Your task to perform on an android device: delete browsing data in the chrome app Image 0: 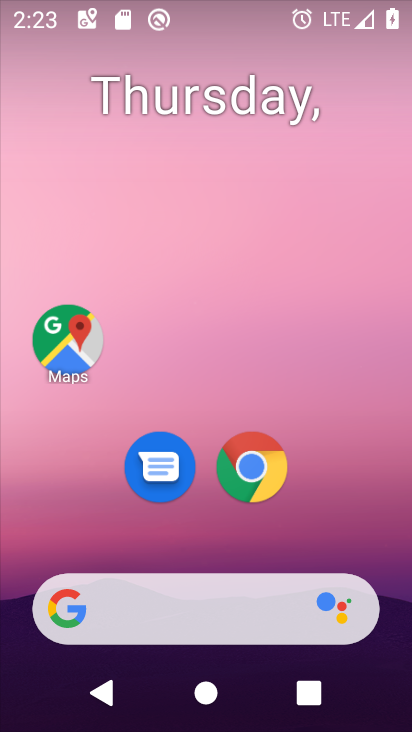
Step 0: click (254, 465)
Your task to perform on an android device: delete browsing data in the chrome app Image 1: 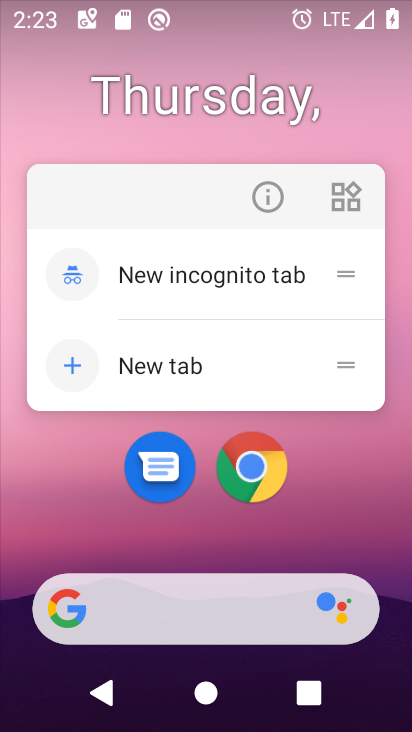
Step 1: click (256, 468)
Your task to perform on an android device: delete browsing data in the chrome app Image 2: 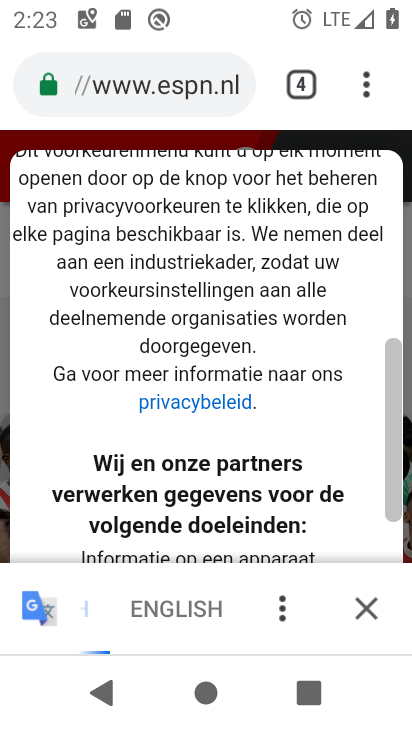
Step 2: click (367, 89)
Your task to perform on an android device: delete browsing data in the chrome app Image 3: 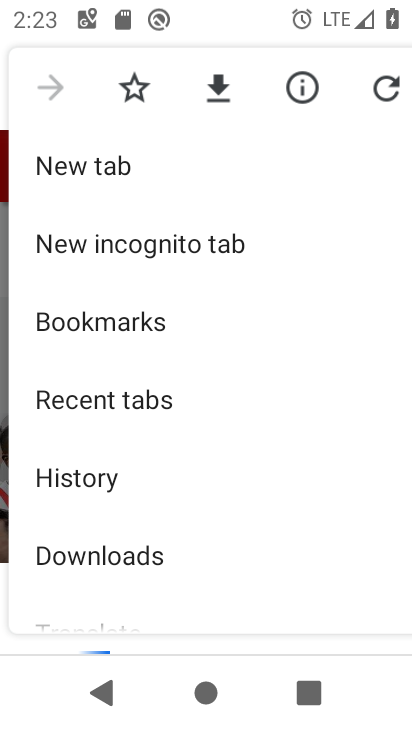
Step 3: click (105, 327)
Your task to perform on an android device: delete browsing data in the chrome app Image 4: 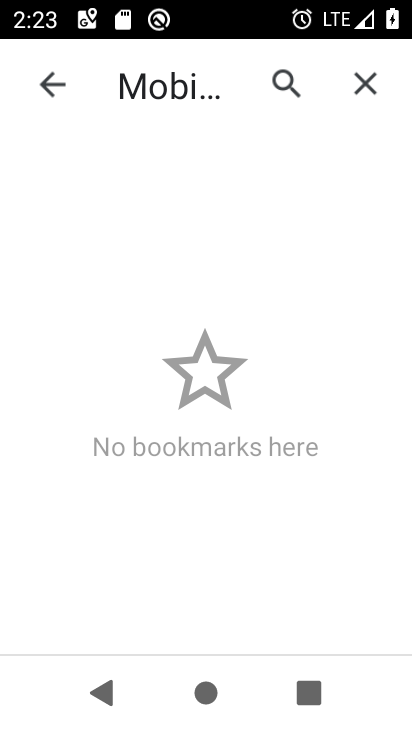
Step 4: click (42, 92)
Your task to perform on an android device: delete browsing data in the chrome app Image 5: 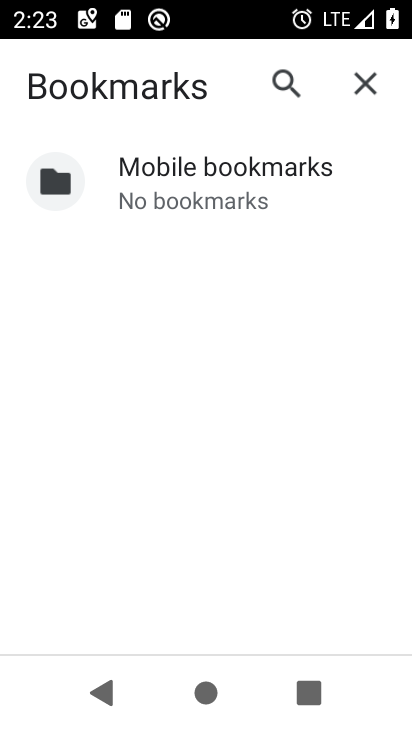
Step 5: click (360, 78)
Your task to perform on an android device: delete browsing data in the chrome app Image 6: 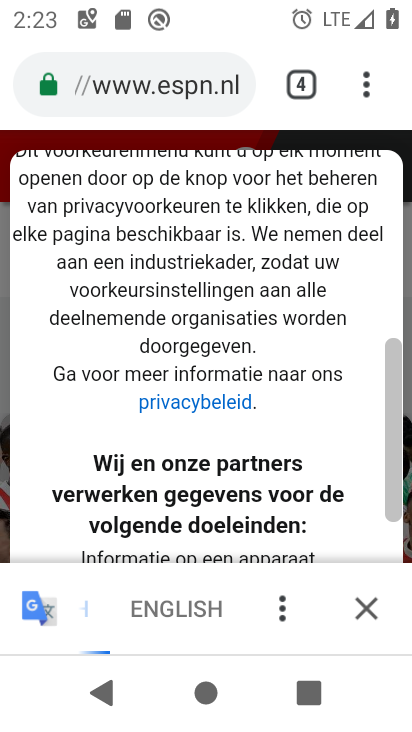
Step 6: click (366, 85)
Your task to perform on an android device: delete browsing data in the chrome app Image 7: 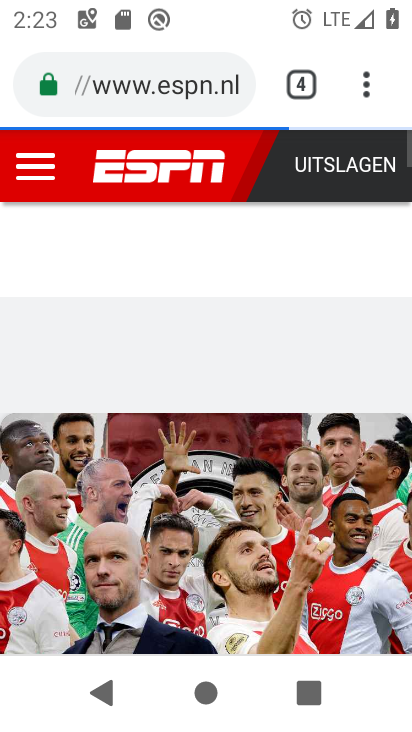
Step 7: drag from (365, 82) to (76, 458)
Your task to perform on an android device: delete browsing data in the chrome app Image 8: 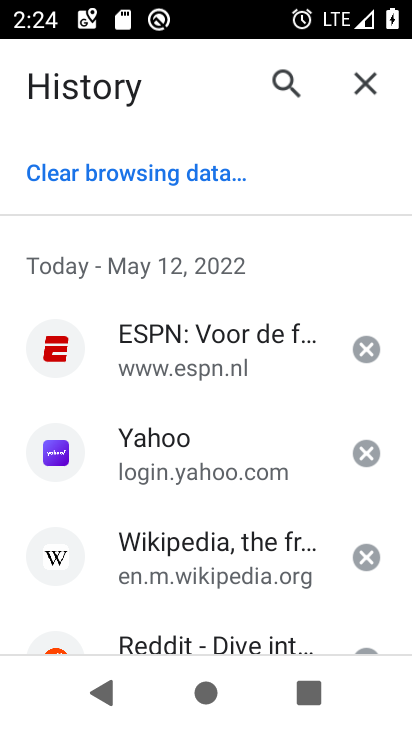
Step 8: click (92, 169)
Your task to perform on an android device: delete browsing data in the chrome app Image 9: 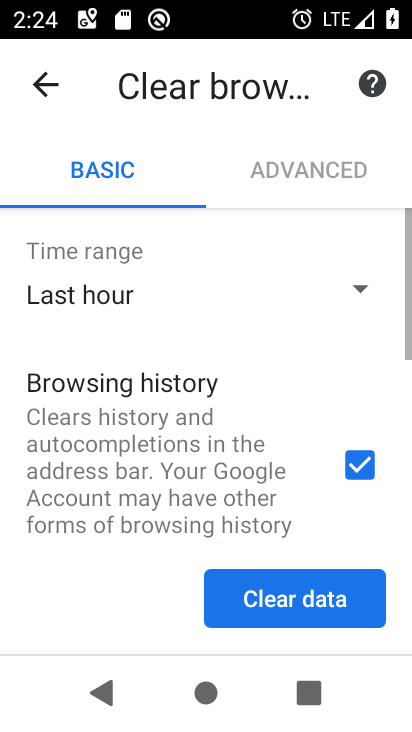
Step 9: click (287, 597)
Your task to perform on an android device: delete browsing data in the chrome app Image 10: 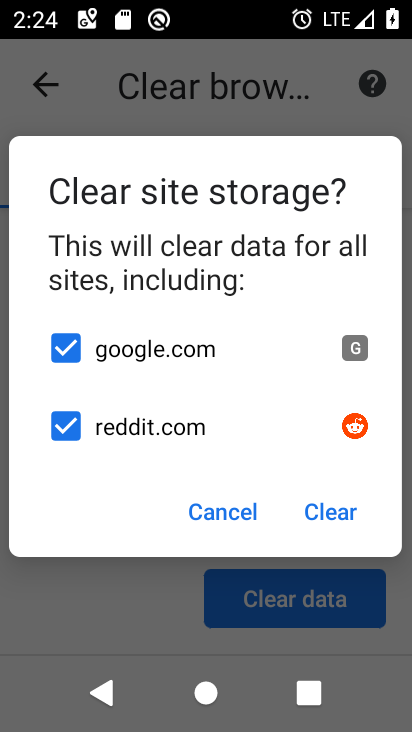
Step 10: click (324, 508)
Your task to perform on an android device: delete browsing data in the chrome app Image 11: 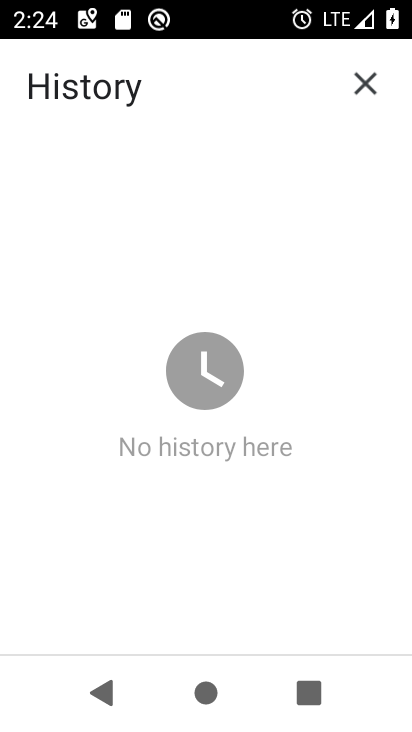
Step 11: task complete